Your task to perform on an android device: turn on wifi Image 0: 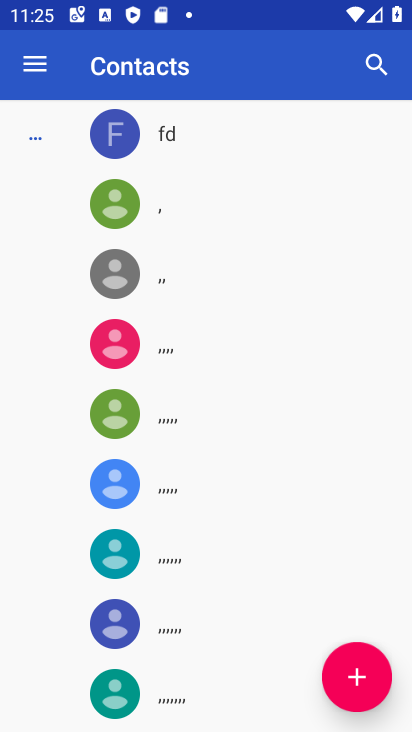
Step 0: press home button
Your task to perform on an android device: turn on wifi Image 1: 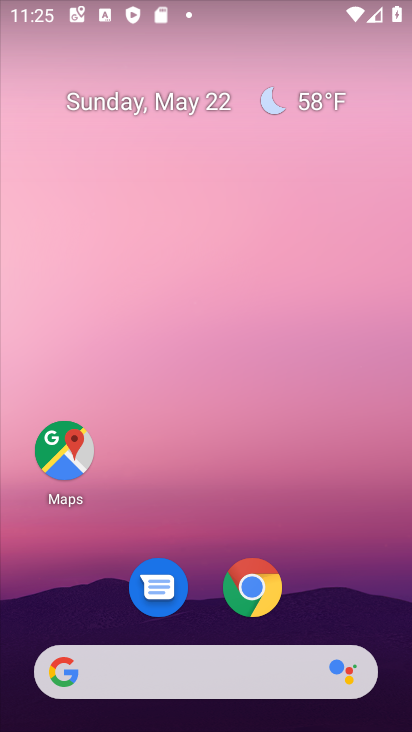
Step 1: drag from (216, 411) to (239, 47)
Your task to perform on an android device: turn on wifi Image 2: 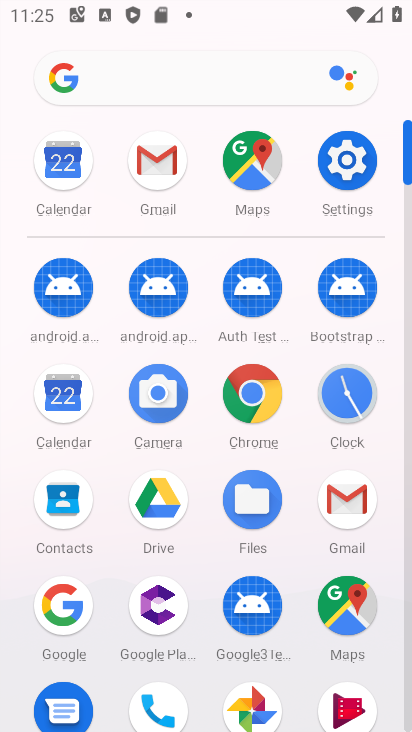
Step 2: click (358, 170)
Your task to perform on an android device: turn on wifi Image 3: 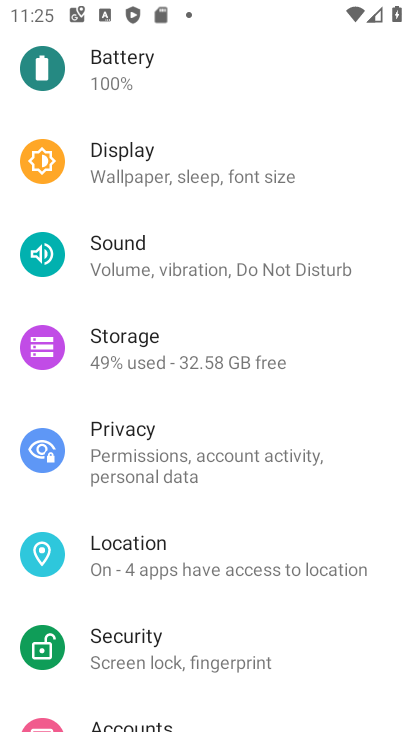
Step 3: drag from (267, 211) to (308, 529)
Your task to perform on an android device: turn on wifi Image 4: 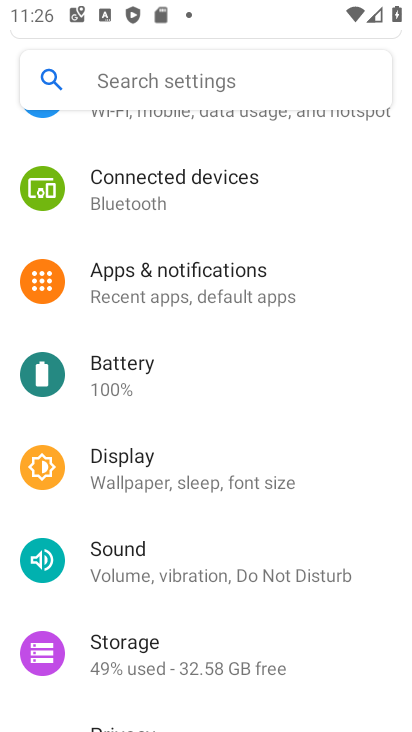
Step 4: drag from (244, 244) to (238, 494)
Your task to perform on an android device: turn on wifi Image 5: 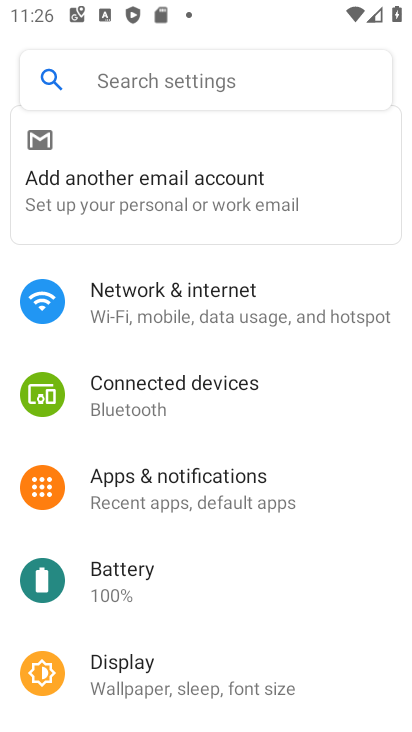
Step 5: click (286, 304)
Your task to perform on an android device: turn on wifi Image 6: 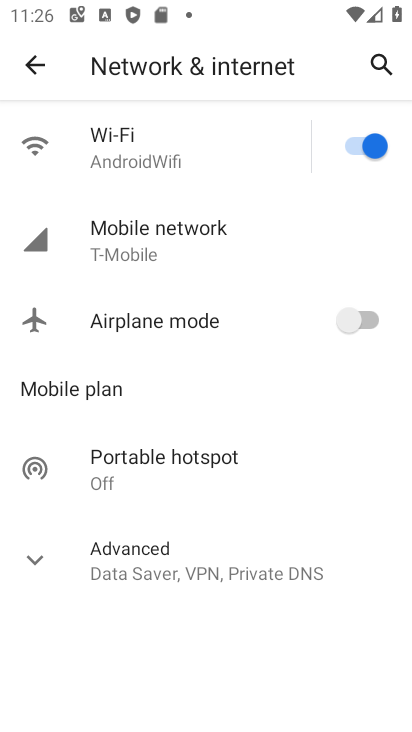
Step 6: task complete